Your task to perform on an android device: empty trash in google photos Image 0: 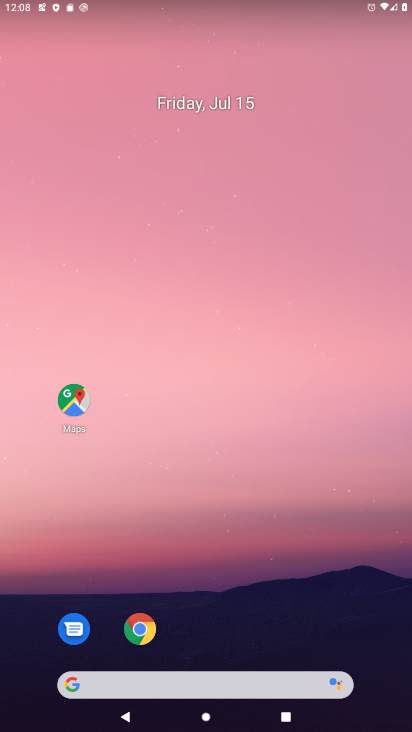
Step 0: press home button
Your task to perform on an android device: empty trash in google photos Image 1: 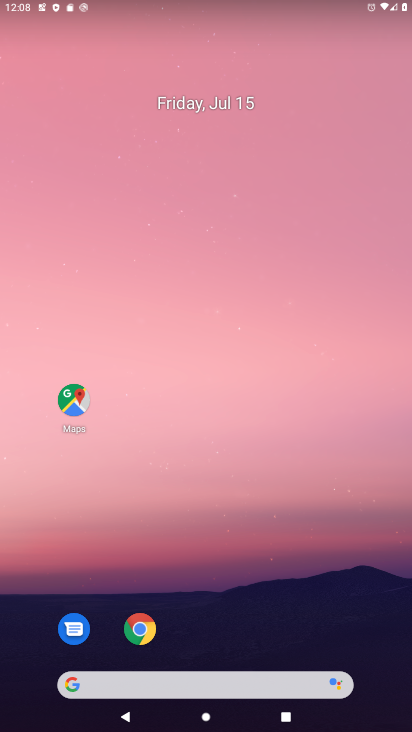
Step 1: drag from (258, 641) to (311, 188)
Your task to perform on an android device: empty trash in google photos Image 2: 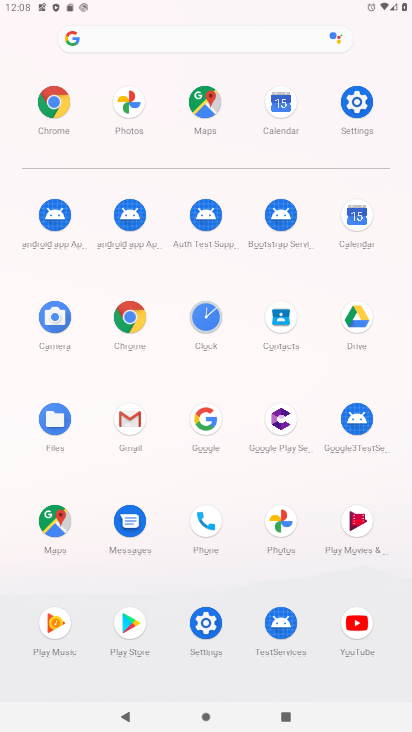
Step 2: click (124, 100)
Your task to perform on an android device: empty trash in google photos Image 3: 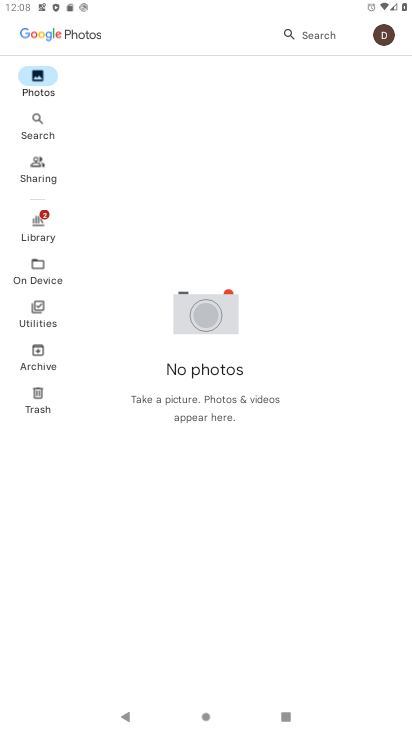
Step 3: click (36, 395)
Your task to perform on an android device: empty trash in google photos Image 4: 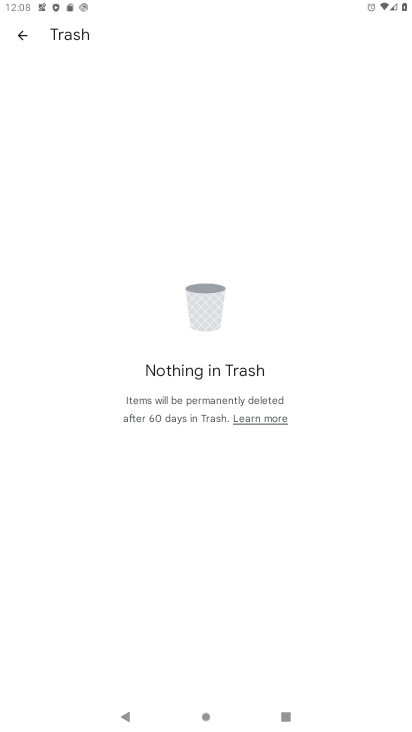
Step 4: task complete